Your task to perform on an android device: refresh tabs in the chrome app Image 0: 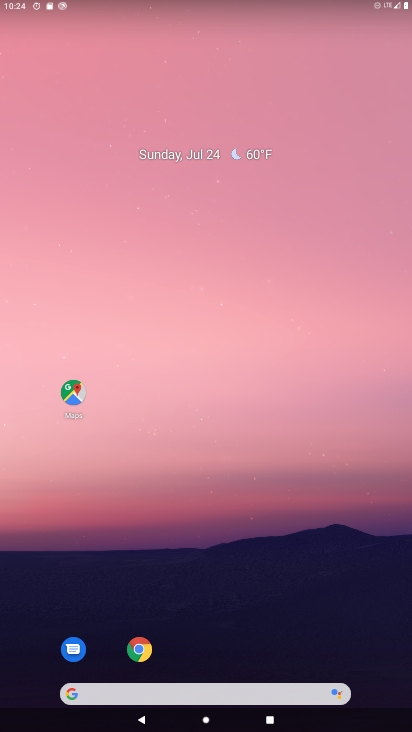
Step 0: drag from (238, 213) to (234, 104)
Your task to perform on an android device: refresh tabs in the chrome app Image 1: 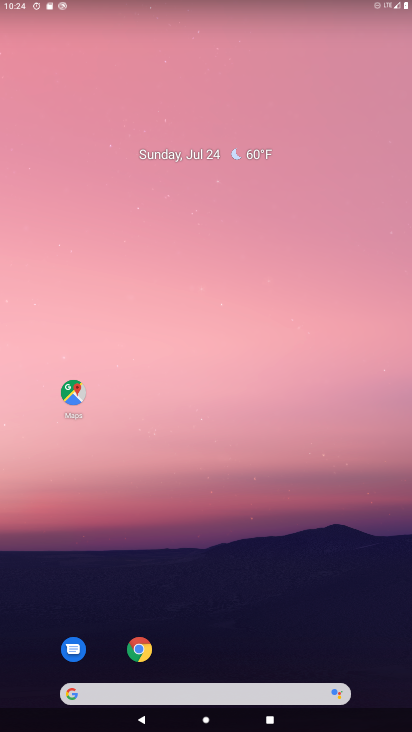
Step 1: drag from (320, 636) to (230, 97)
Your task to perform on an android device: refresh tabs in the chrome app Image 2: 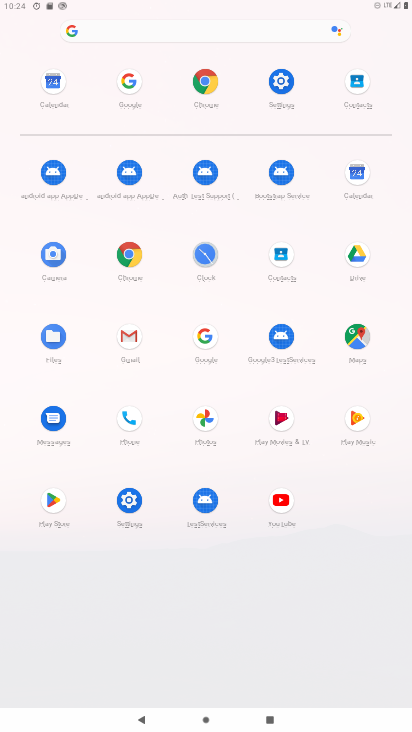
Step 2: click (212, 82)
Your task to perform on an android device: refresh tabs in the chrome app Image 3: 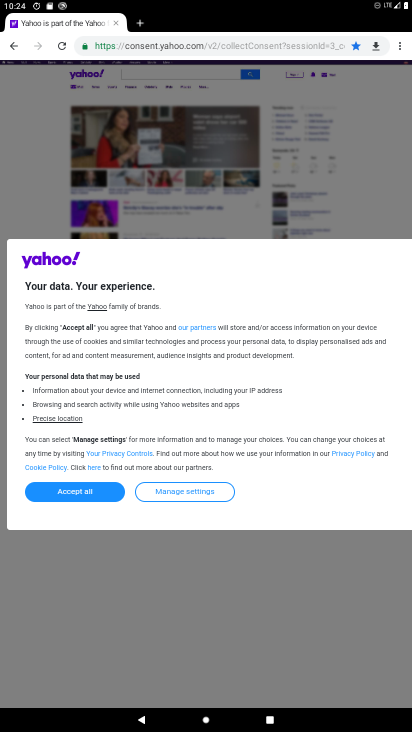
Step 3: click (58, 41)
Your task to perform on an android device: refresh tabs in the chrome app Image 4: 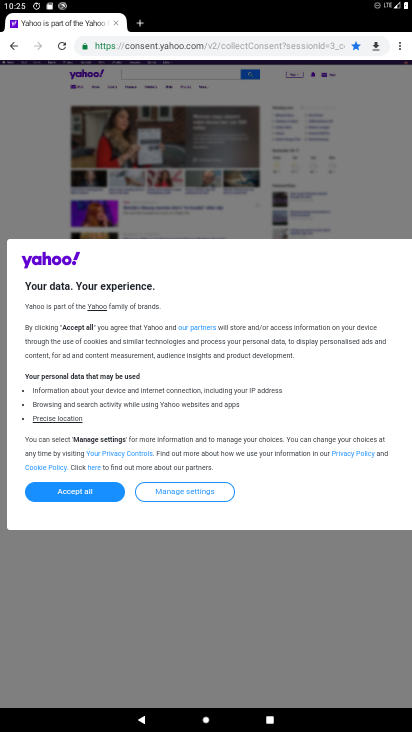
Step 4: task complete